Your task to perform on an android device: Is it going to rain today? Image 0: 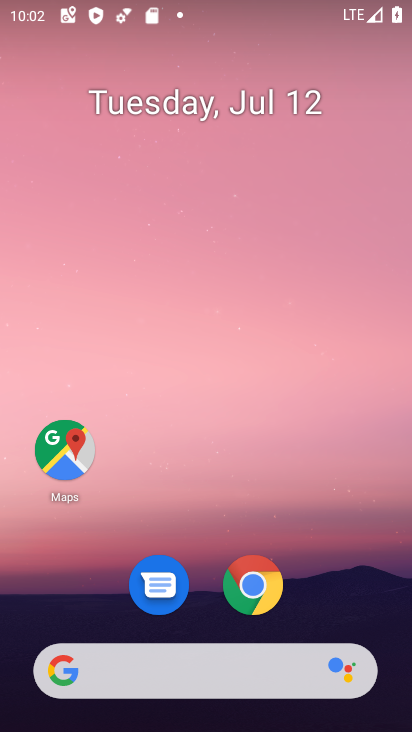
Step 0: click (223, 656)
Your task to perform on an android device: Is it going to rain today? Image 1: 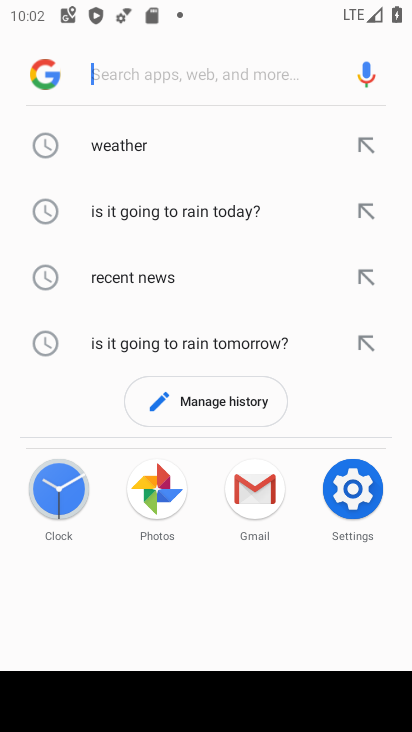
Step 1: click (237, 208)
Your task to perform on an android device: Is it going to rain today? Image 2: 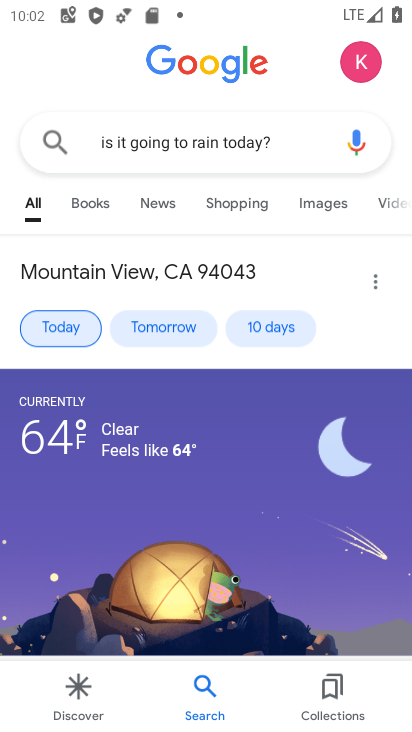
Step 2: task complete